Your task to perform on an android device: change your default location settings in chrome Image 0: 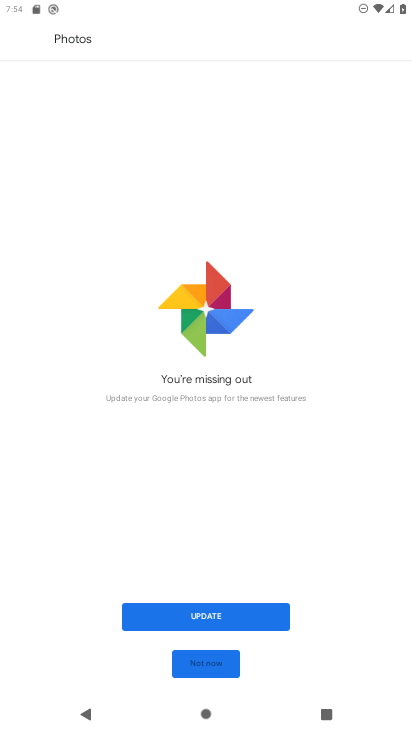
Step 0: press home button
Your task to perform on an android device: change your default location settings in chrome Image 1: 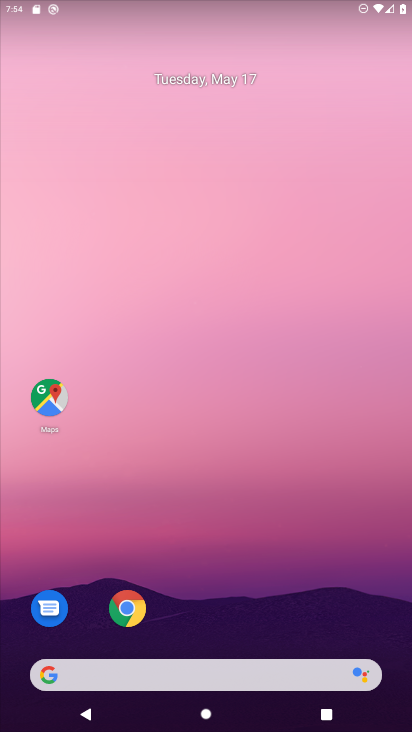
Step 1: click (117, 613)
Your task to perform on an android device: change your default location settings in chrome Image 2: 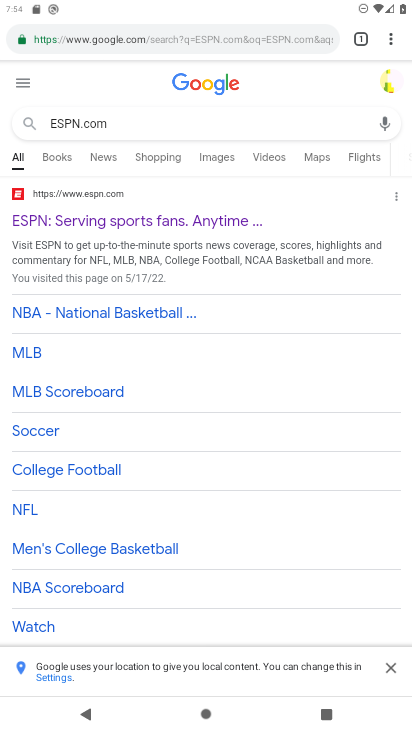
Step 2: click (389, 39)
Your task to perform on an android device: change your default location settings in chrome Image 3: 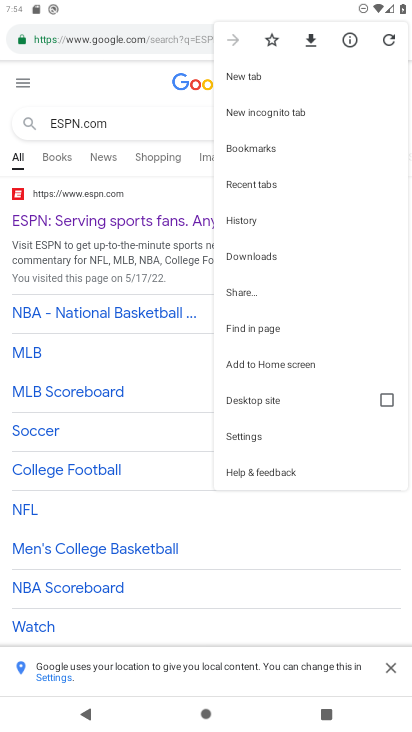
Step 3: click (249, 437)
Your task to perform on an android device: change your default location settings in chrome Image 4: 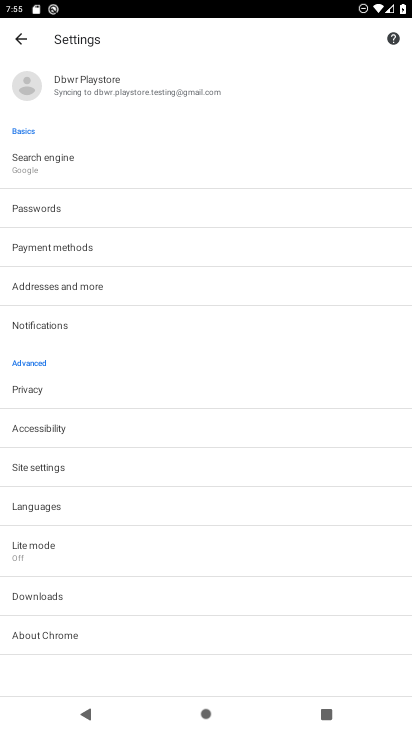
Step 4: click (49, 465)
Your task to perform on an android device: change your default location settings in chrome Image 5: 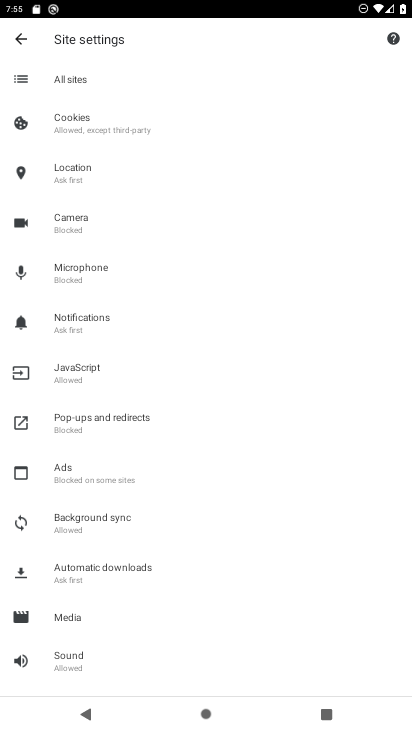
Step 5: drag from (104, 572) to (137, 435)
Your task to perform on an android device: change your default location settings in chrome Image 6: 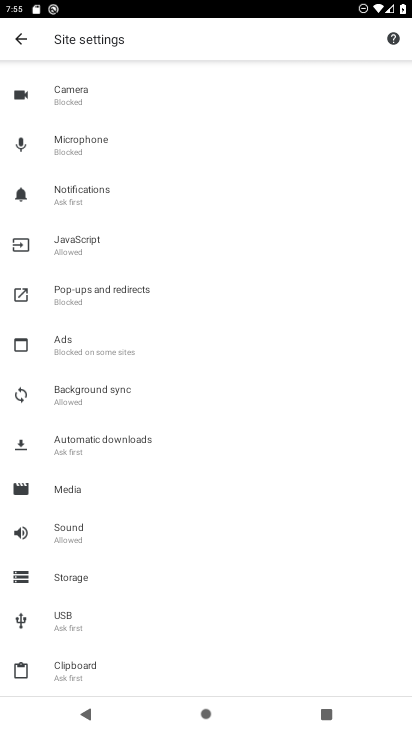
Step 6: drag from (132, 347) to (109, 639)
Your task to perform on an android device: change your default location settings in chrome Image 7: 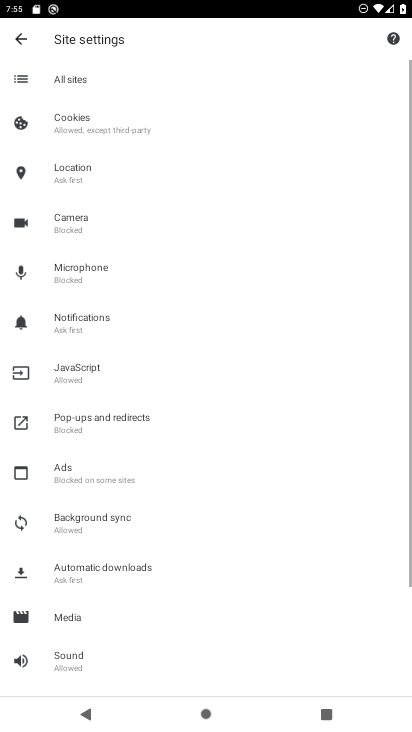
Step 7: click (84, 178)
Your task to perform on an android device: change your default location settings in chrome Image 8: 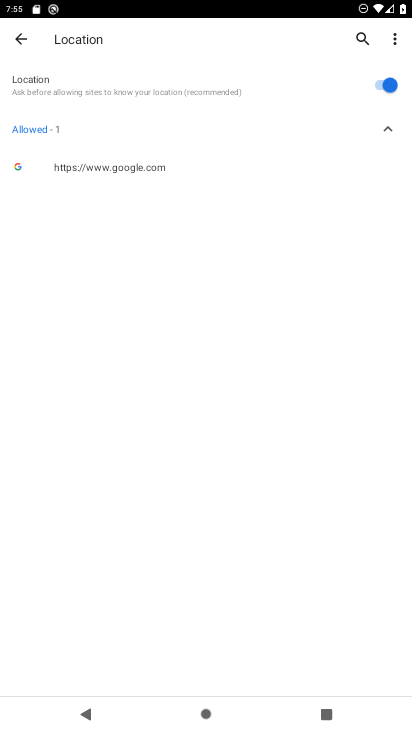
Step 8: click (374, 82)
Your task to perform on an android device: change your default location settings in chrome Image 9: 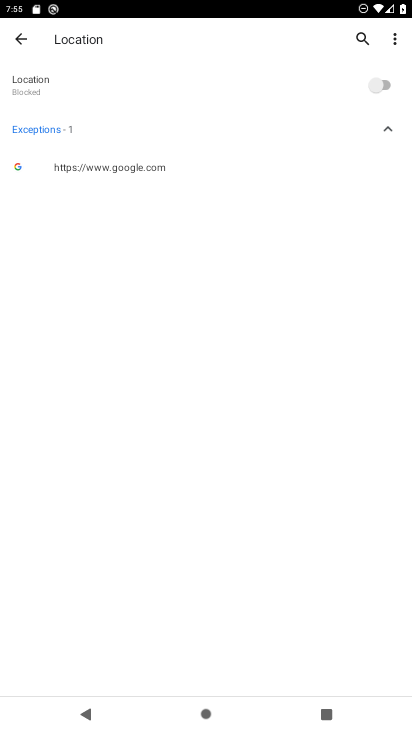
Step 9: task complete